Your task to perform on an android device: Go to internet settings Image 0: 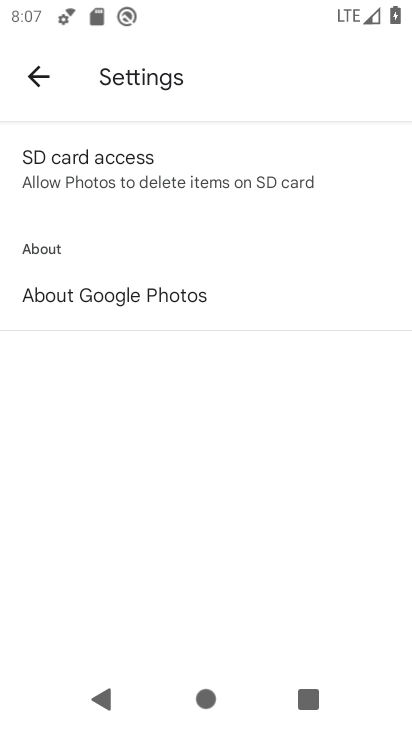
Step 0: press home button
Your task to perform on an android device: Go to internet settings Image 1: 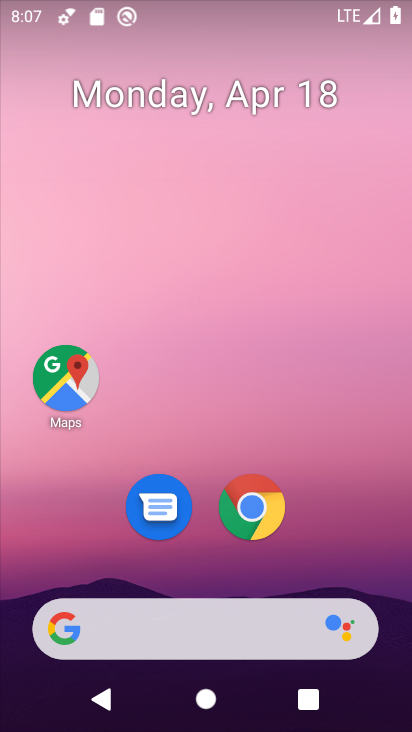
Step 1: drag from (10, 496) to (274, 80)
Your task to perform on an android device: Go to internet settings Image 2: 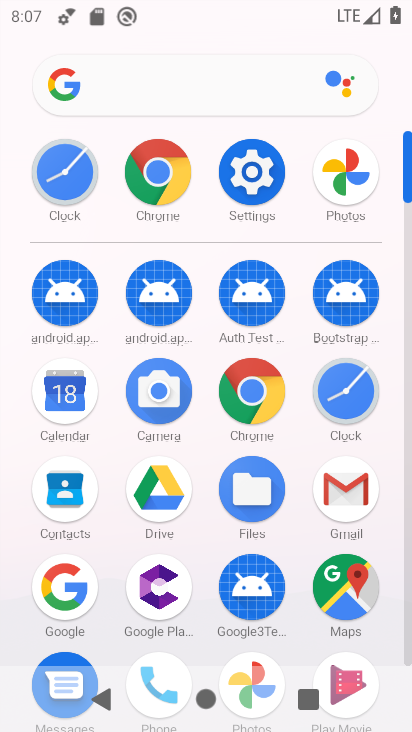
Step 2: click (242, 158)
Your task to perform on an android device: Go to internet settings Image 3: 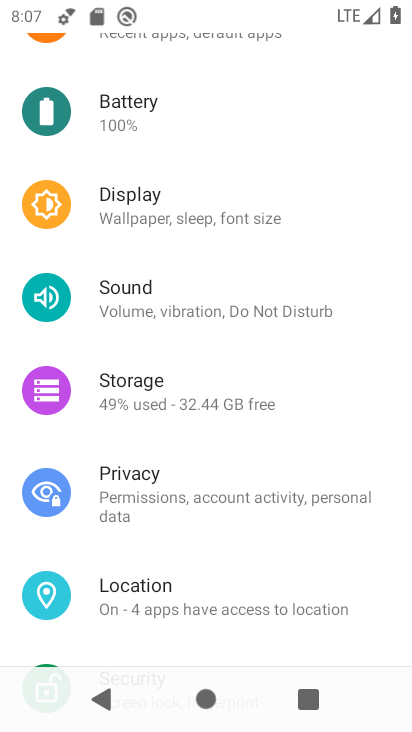
Step 3: drag from (216, 177) to (233, 600)
Your task to perform on an android device: Go to internet settings Image 4: 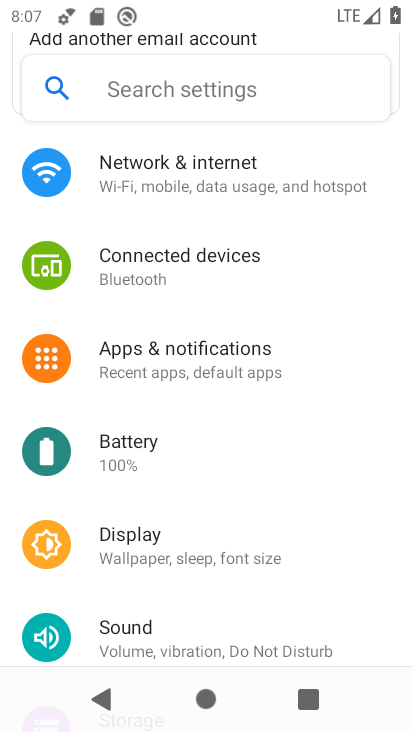
Step 4: click (212, 175)
Your task to perform on an android device: Go to internet settings Image 5: 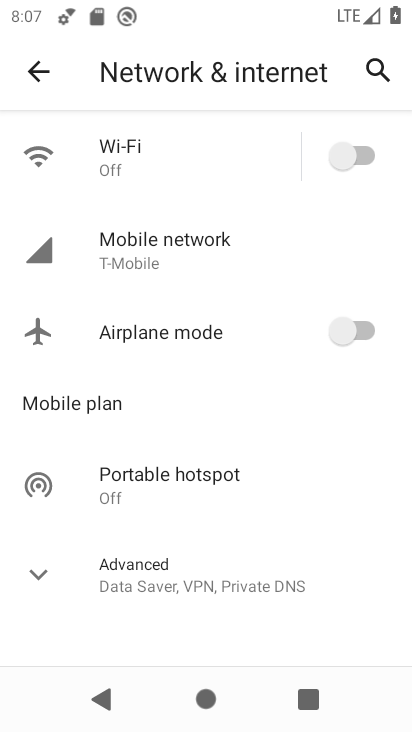
Step 5: task complete